Your task to perform on an android device: Open the gallery Image 0: 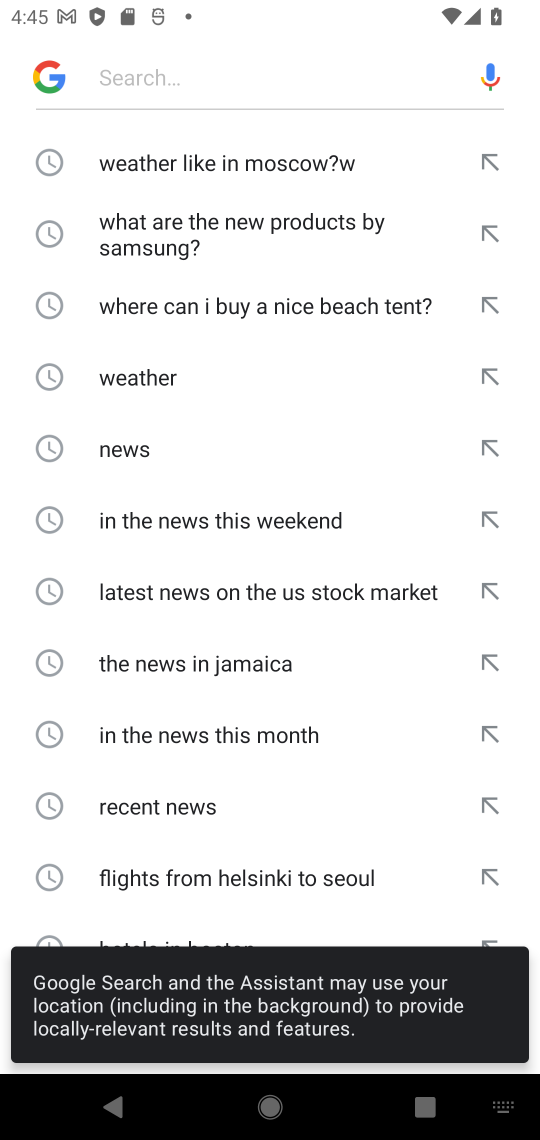
Step 0: press home button
Your task to perform on an android device: Open the gallery Image 1: 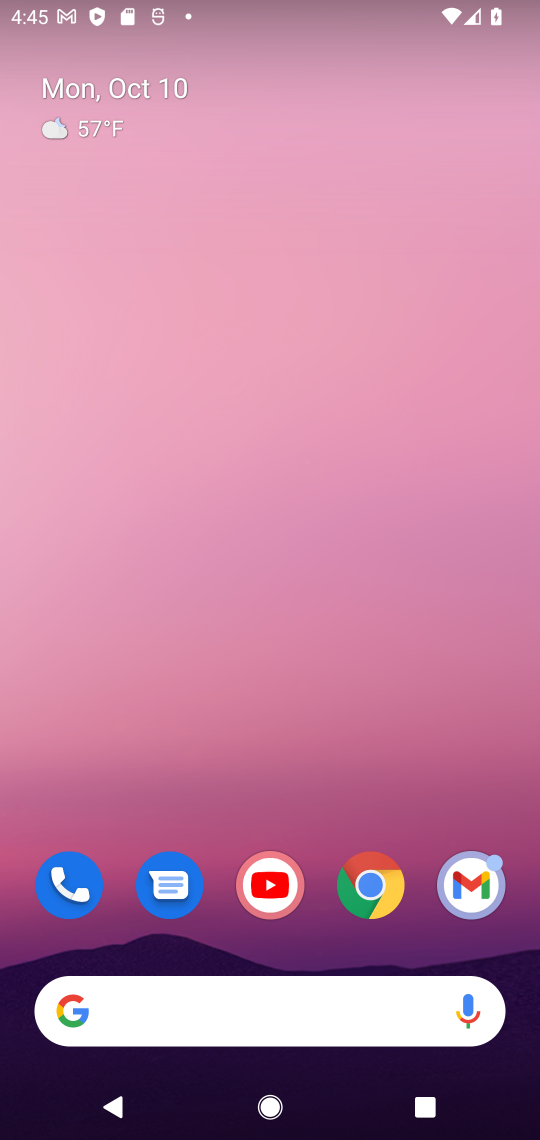
Step 1: drag from (273, 730) to (248, 34)
Your task to perform on an android device: Open the gallery Image 2: 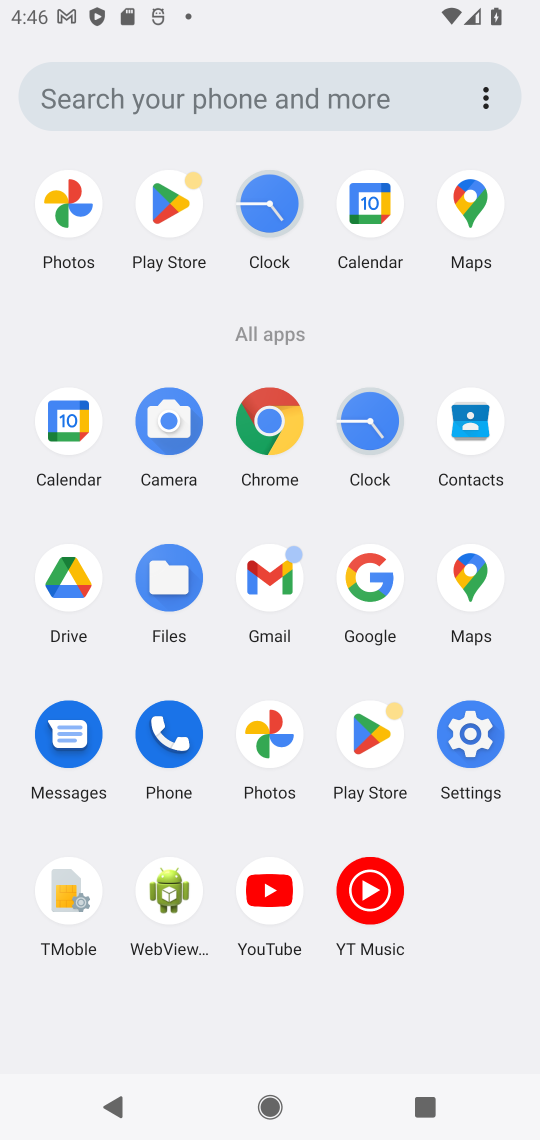
Step 2: click (64, 202)
Your task to perform on an android device: Open the gallery Image 3: 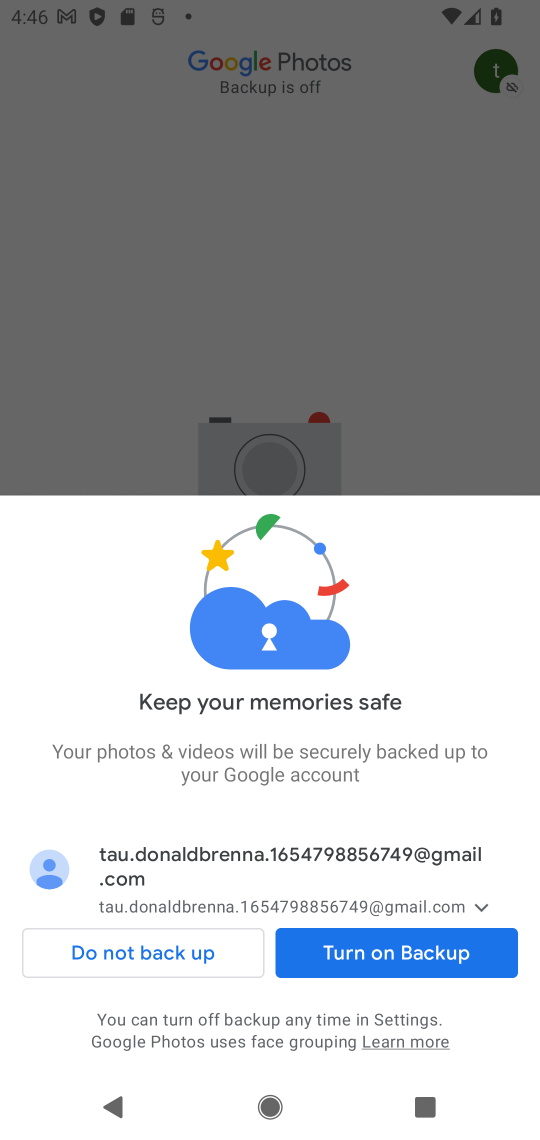
Step 3: click (146, 955)
Your task to perform on an android device: Open the gallery Image 4: 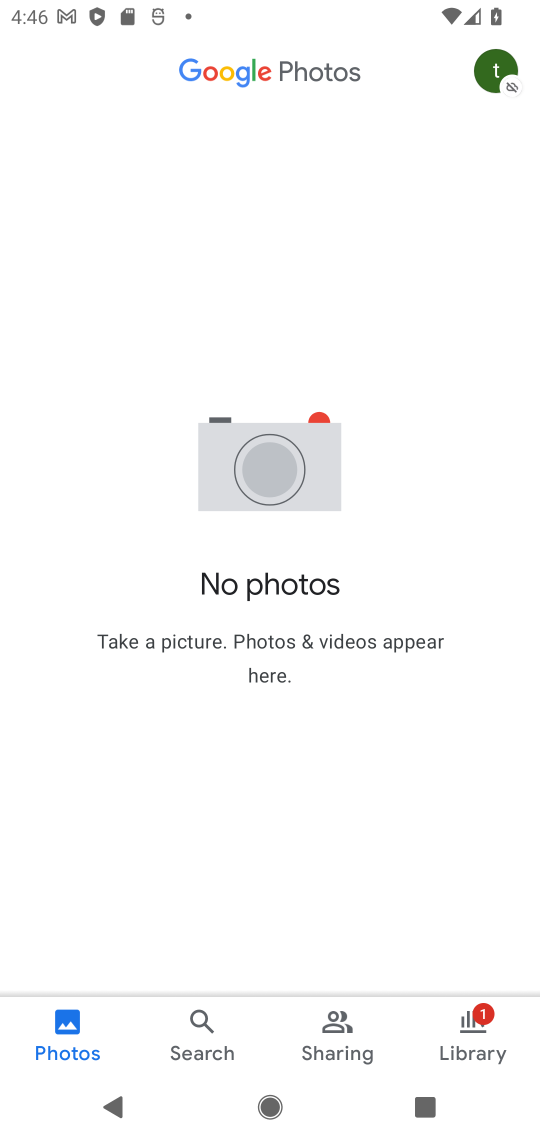
Step 4: task complete